Your task to perform on an android device: Go to calendar. Show me events next week Image 0: 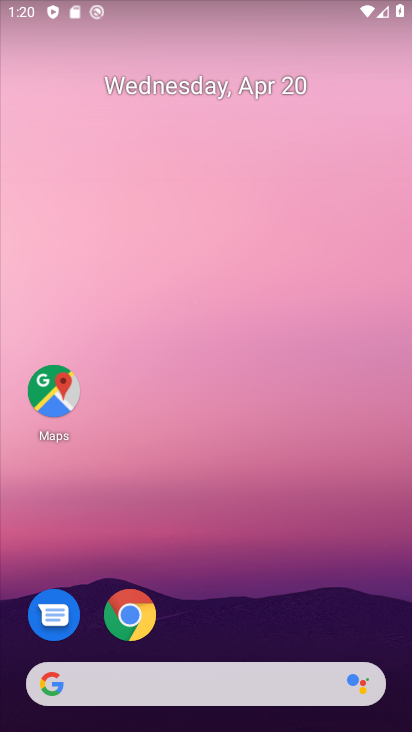
Step 0: drag from (294, 619) to (276, 85)
Your task to perform on an android device: Go to calendar. Show me events next week Image 1: 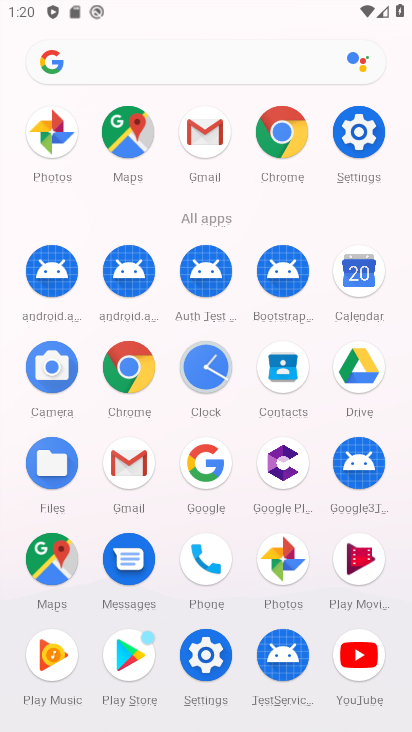
Step 1: click (358, 286)
Your task to perform on an android device: Go to calendar. Show me events next week Image 2: 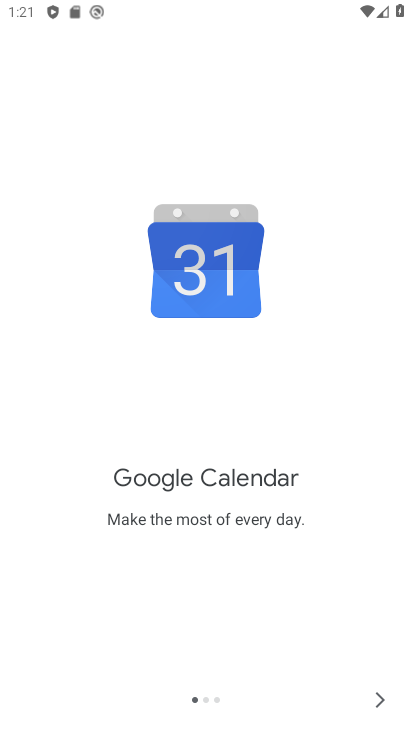
Step 2: click (370, 691)
Your task to perform on an android device: Go to calendar. Show me events next week Image 3: 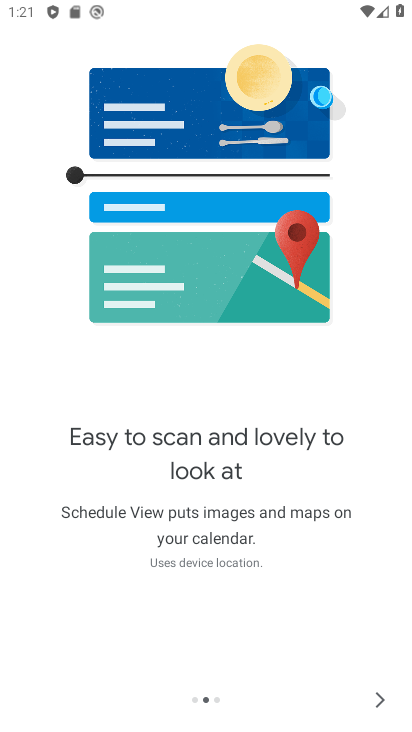
Step 3: click (370, 691)
Your task to perform on an android device: Go to calendar. Show me events next week Image 4: 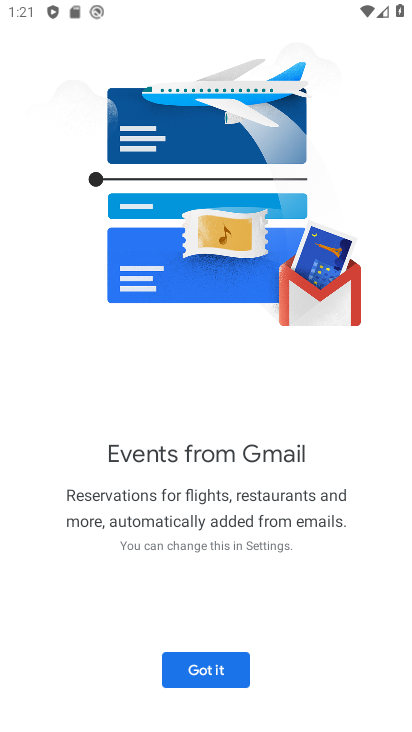
Step 4: click (191, 672)
Your task to perform on an android device: Go to calendar. Show me events next week Image 5: 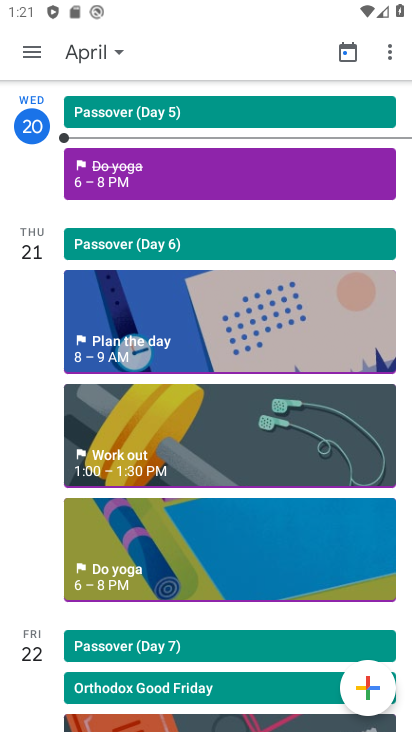
Step 5: click (67, 50)
Your task to perform on an android device: Go to calendar. Show me events next week Image 6: 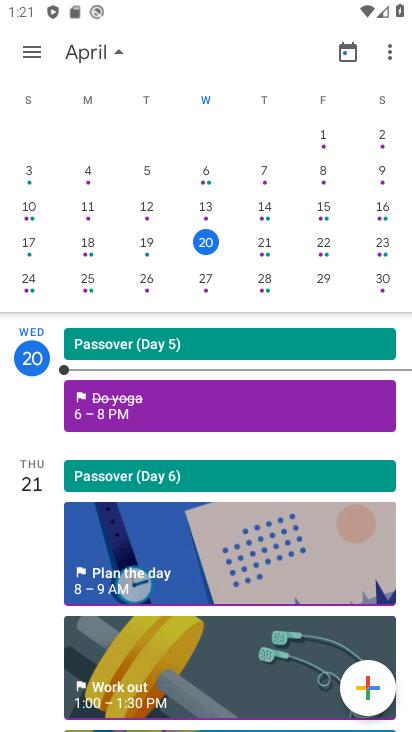
Step 6: click (36, 292)
Your task to perform on an android device: Go to calendar. Show me events next week Image 7: 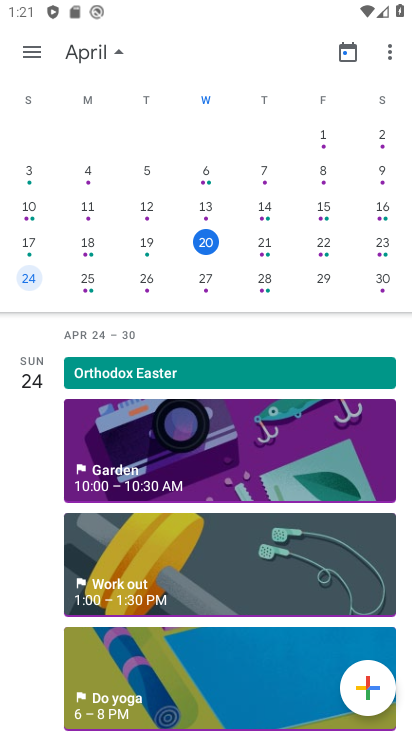
Step 7: click (96, 283)
Your task to perform on an android device: Go to calendar. Show me events next week Image 8: 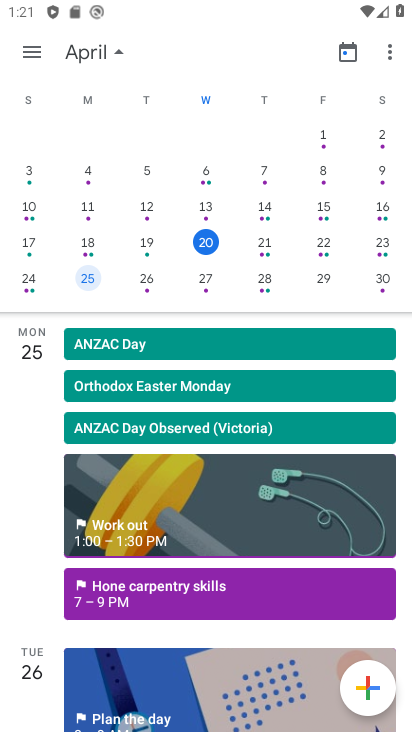
Step 8: click (150, 288)
Your task to perform on an android device: Go to calendar. Show me events next week Image 9: 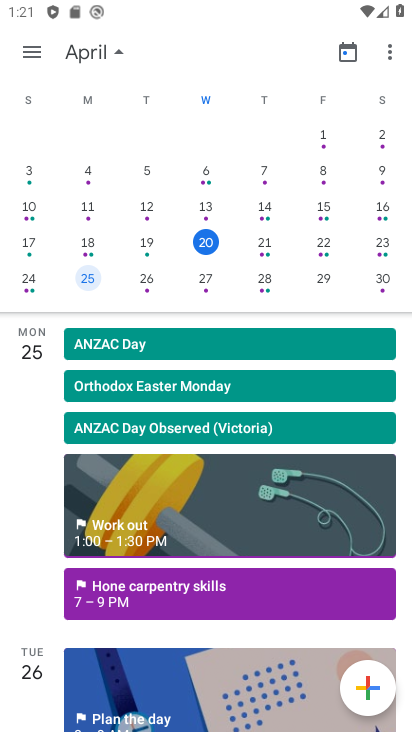
Step 9: click (155, 286)
Your task to perform on an android device: Go to calendar. Show me events next week Image 10: 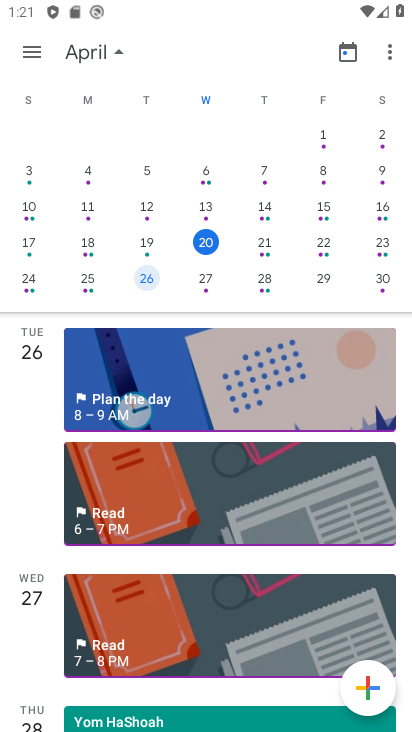
Step 10: click (204, 291)
Your task to perform on an android device: Go to calendar. Show me events next week Image 11: 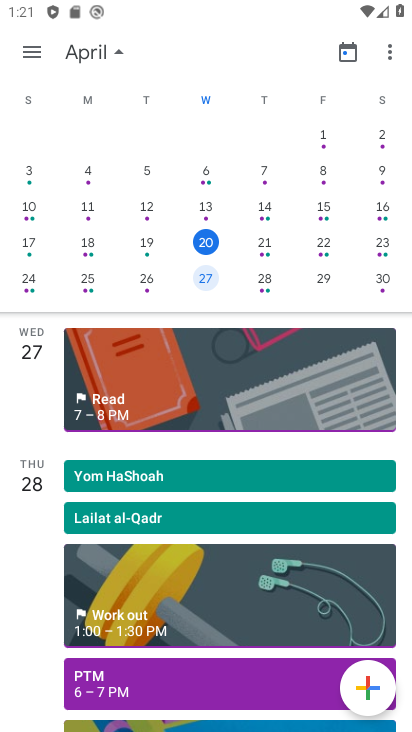
Step 11: click (267, 285)
Your task to perform on an android device: Go to calendar. Show me events next week Image 12: 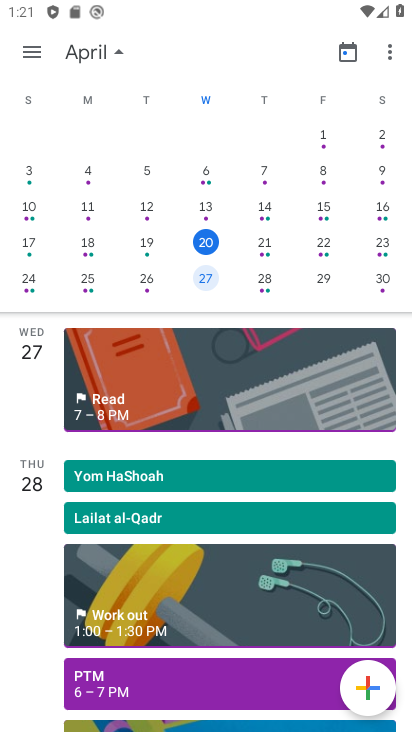
Step 12: click (274, 288)
Your task to perform on an android device: Go to calendar. Show me events next week Image 13: 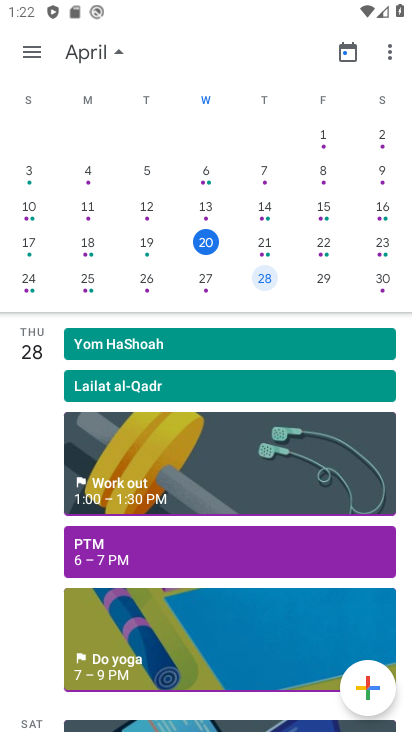
Step 13: click (393, 286)
Your task to perform on an android device: Go to calendar. Show me events next week Image 14: 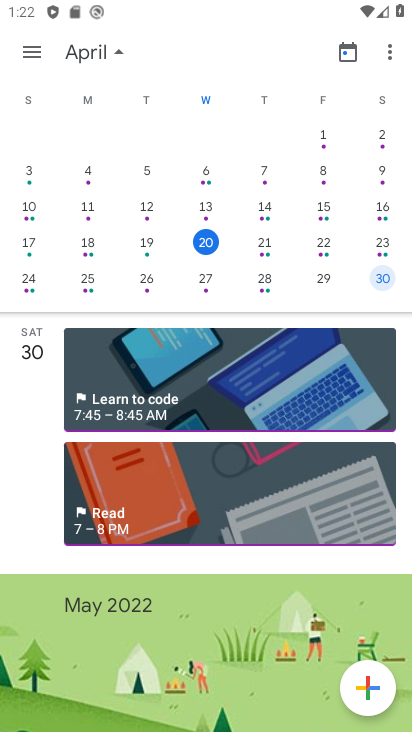
Step 14: task complete